Your task to perform on an android device: toggle data saver in the chrome app Image 0: 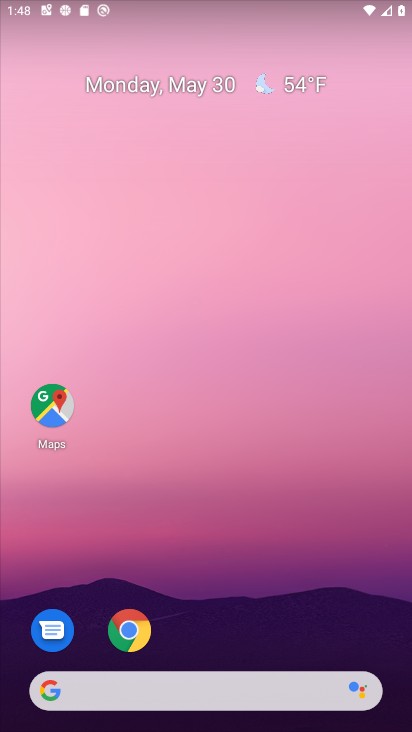
Step 0: press home button
Your task to perform on an android device: toggle data saver in the chrome app Image 1: 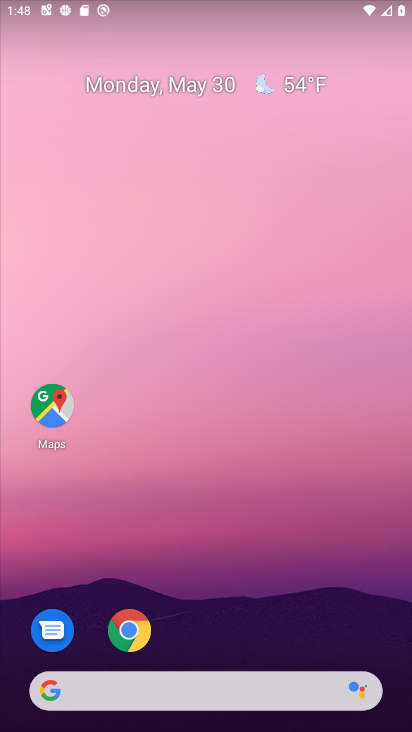
Step 1: click (133, 632)
Your task to perform on an android device: toggle data saver in the chrome app Image 2: 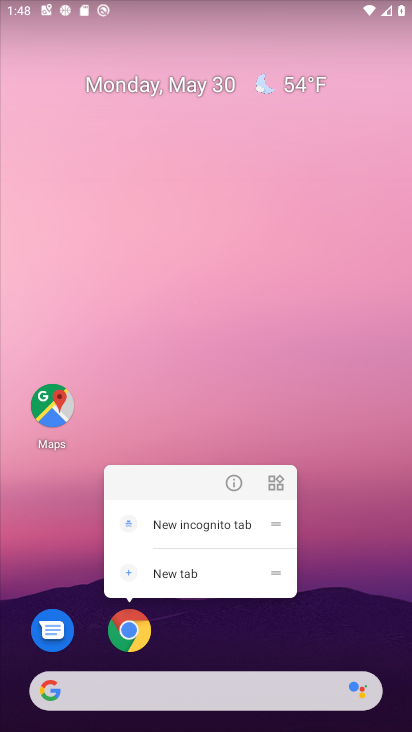
Step 2: click (134, 639)
Your task to perform on an android device: toggle data saver in the chrome app Image 3: 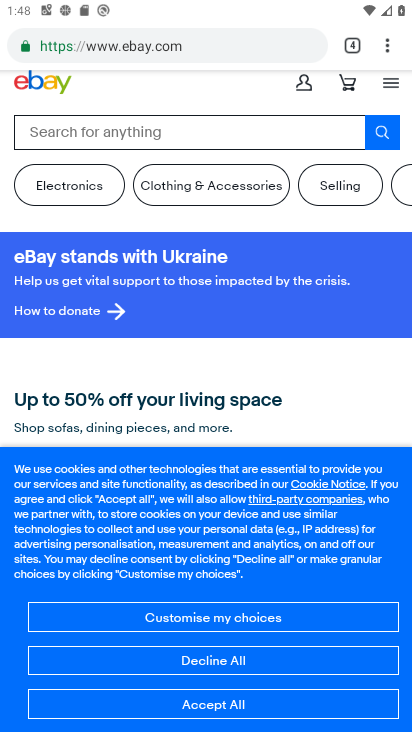
Step 3: drag from (384, 44) to (245, 550)
Your task to perform on an android device: toggle data saver in the chrome app Image 4: 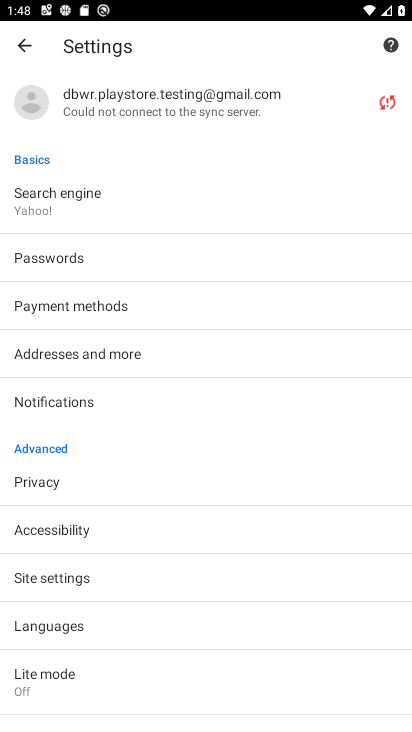
Step 4: click (46, 682)
Your task to perform on an android device: toggle data saver in the chrome app Image 5: 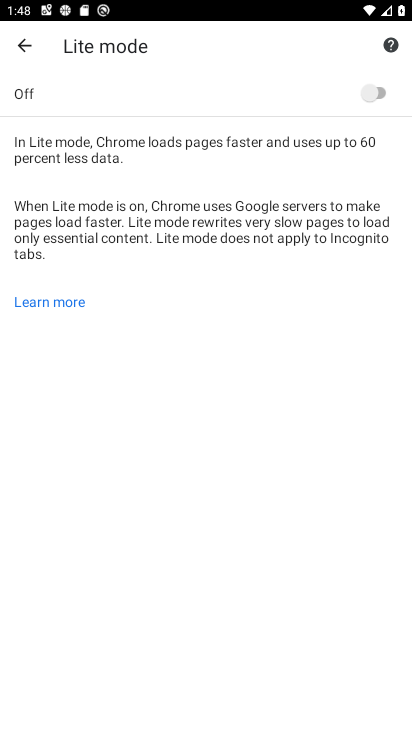
Step 5: click (381, 91)
Your task to perform on an android device: toggle data saver in the chrome app Image 6: 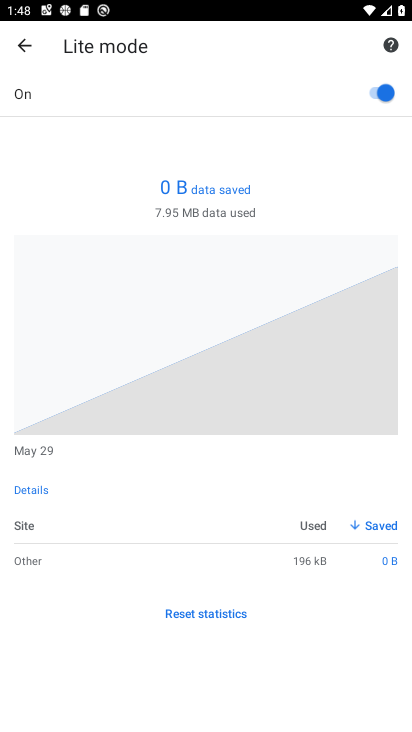
Step 6: task complete